Your task to perform on an android device: Toggle the flashlight Image 0: 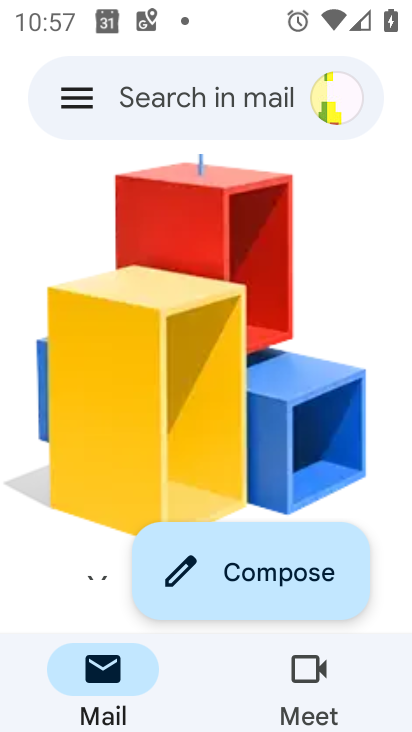
Step 0: click (83, 106)
Your task to perform on an android device: Toggle the flashlight Image 1: 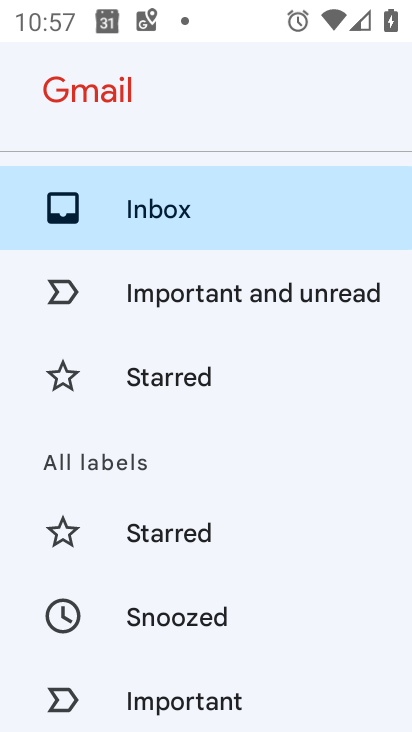
Step 1: drag from (103, 665) to (141, 283)
Your task to perform on an android device: Toggle the flashlight Image 2: 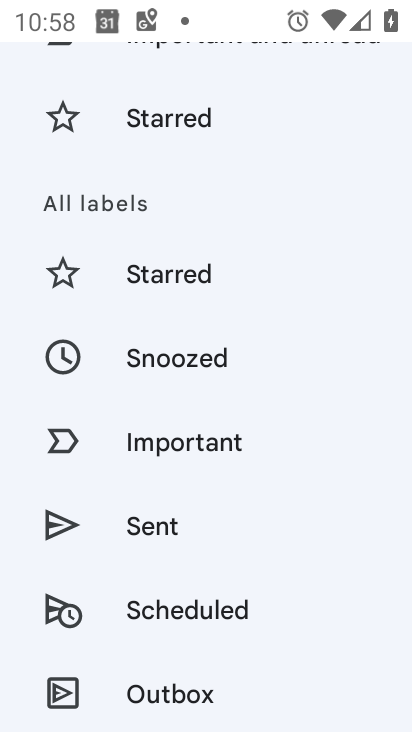
Step 2: press home button
Your task to perform on an android device: Toggle the flashlight Image 3: 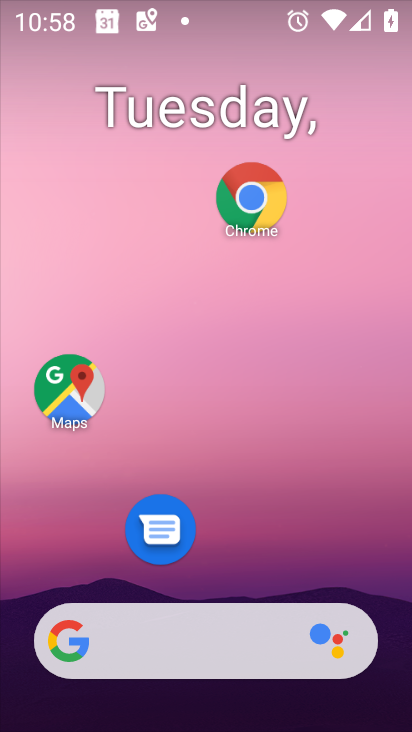
Step 3: drag from (317, 564) to (301, 122)
Your task to perform on an android device: Toggle the flashlight Image 4: 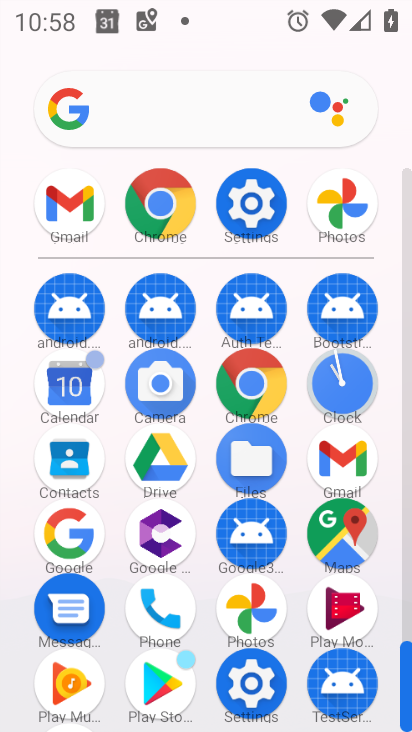
Step 4: click (229, 682)
Your task to perform on an android device: Toggle the flashlight Image 5: 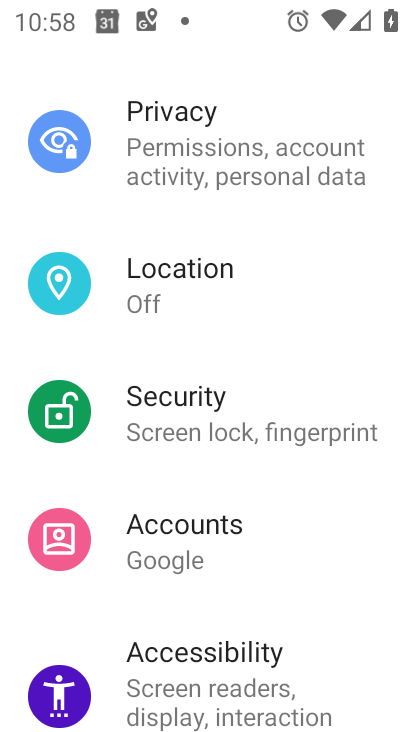
Step 5: task complete